Your task to perform on an android device: Search for pizza restaurants on Maps Image 0: 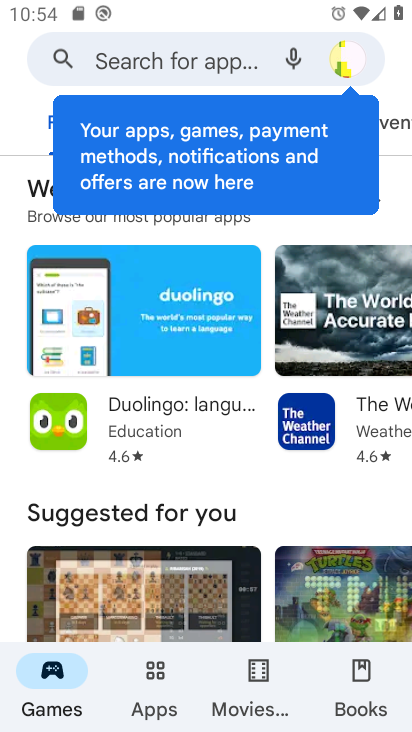
Step 0: press home button
Your task to perform on an android device: Search for pizza restaurants on Maps Image 1: 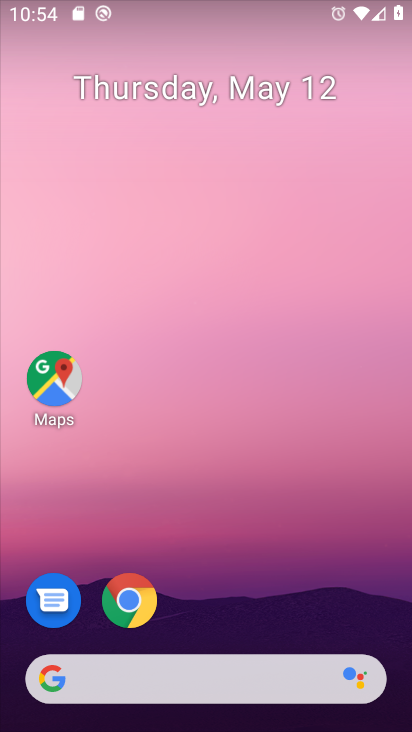
Step 1: click (53, 381)
Your task to perform on an android device: Search for pizza restaurants on Maps Image 2: 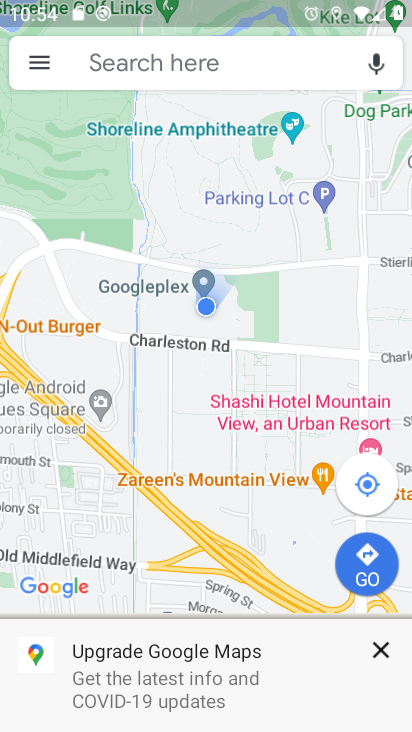
Step 2: click (176, 69)
Your task to perform on an android device: Search for pizza restaurants on Maps Image 3: 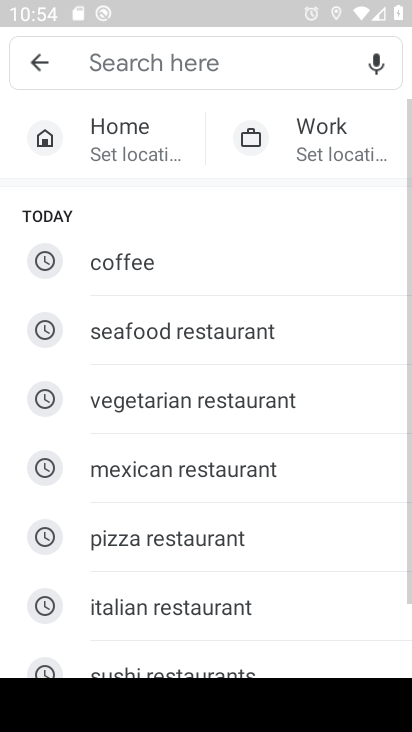
Step 3: click (151, 540)
Your task to perform on an android device: Search for pizza restaurants on Maps Image 4: 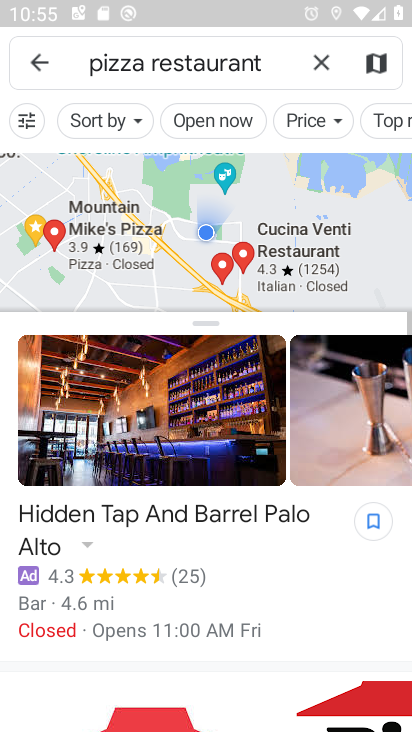
Step 4: task complete